Your task to perform on an android device: check out phone information Image 0: 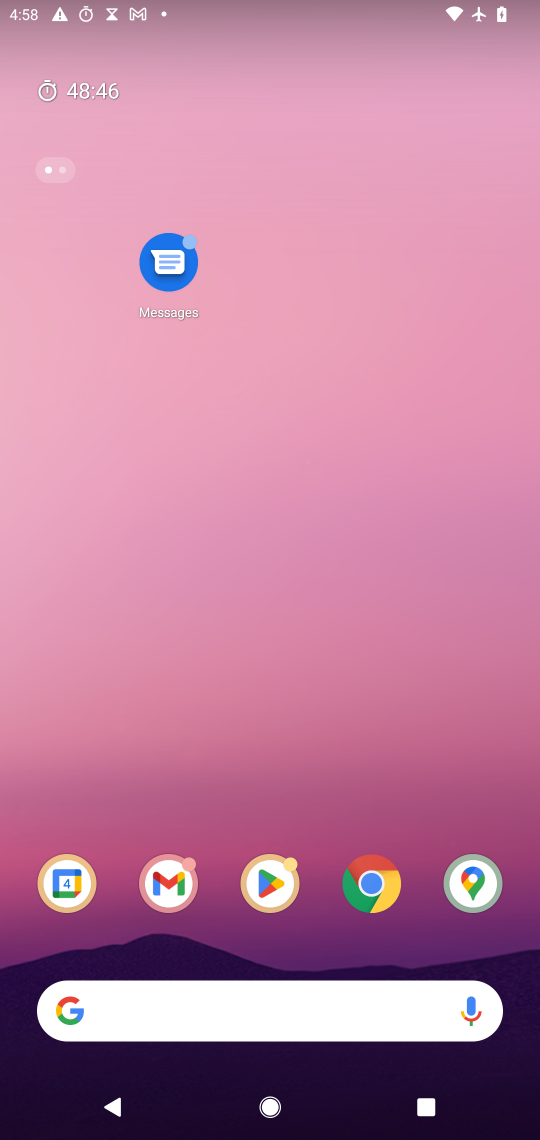
Step 0: drag from (318, 969) to (322, 65)
Your task to perform on an android device: check out phone information Image 1: 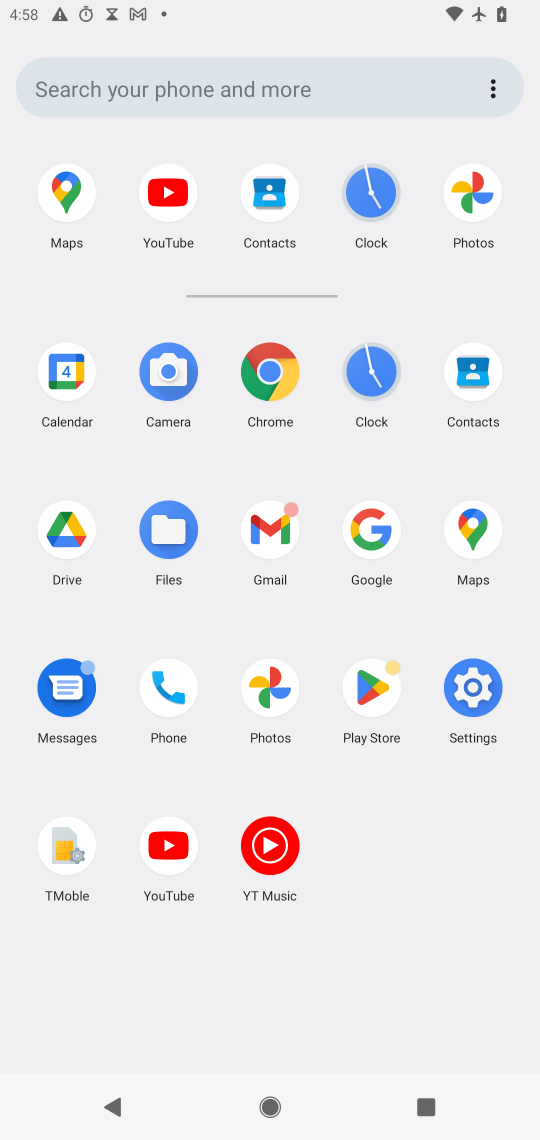
Step 1: click (472, 684)
Your task to perform on an android device: check out phone information Image 2: 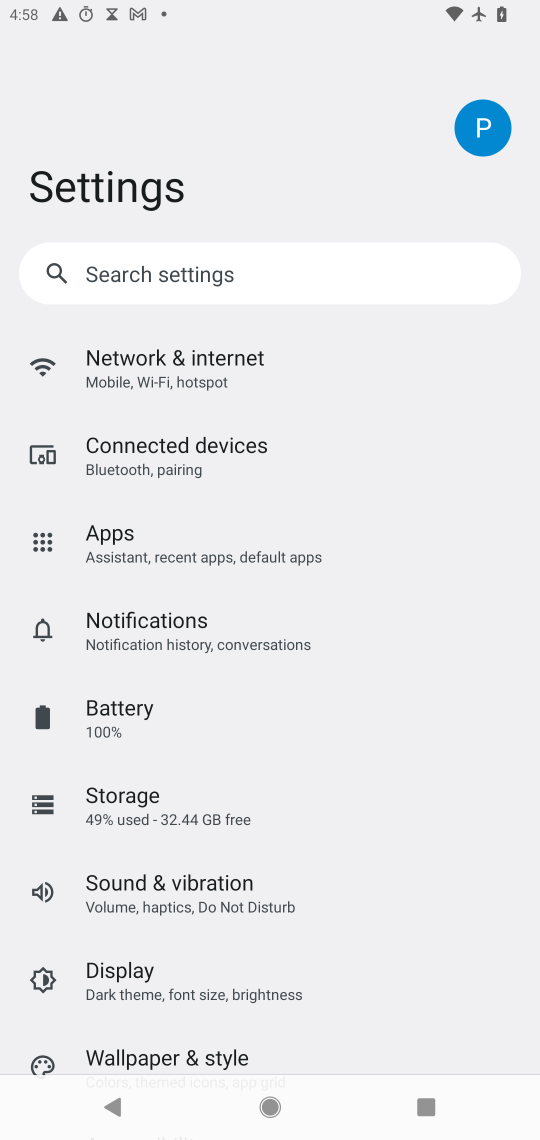
Step 2: drag from (238, 990) to (219, 595)
Your task to perform on an android device: check out phone information Image 3: 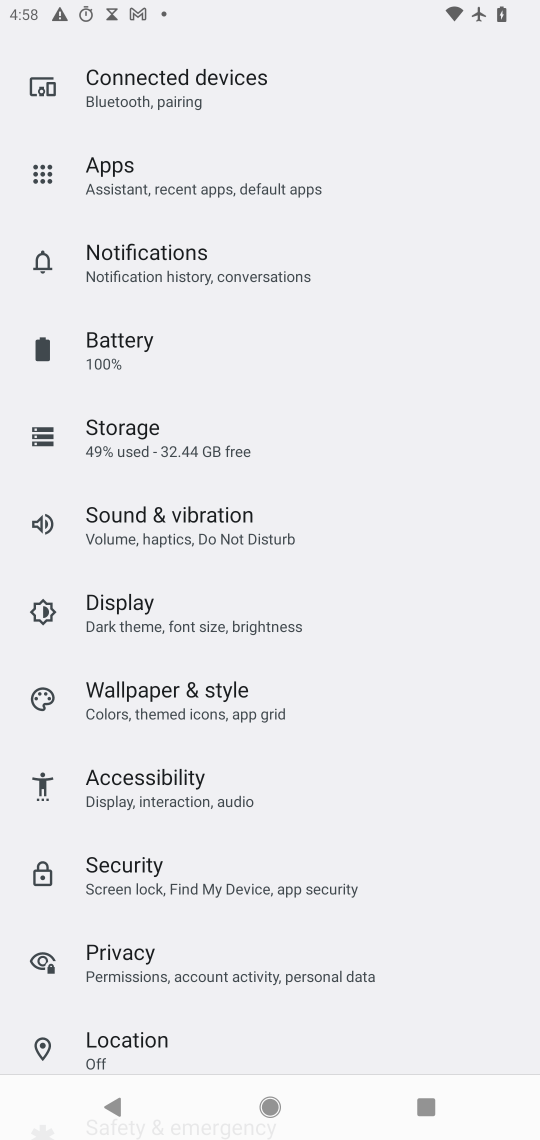
Step 3: drag from (224, 1004) to (209, 473)
Your task to perform on an android device: check out phone information Image 4: 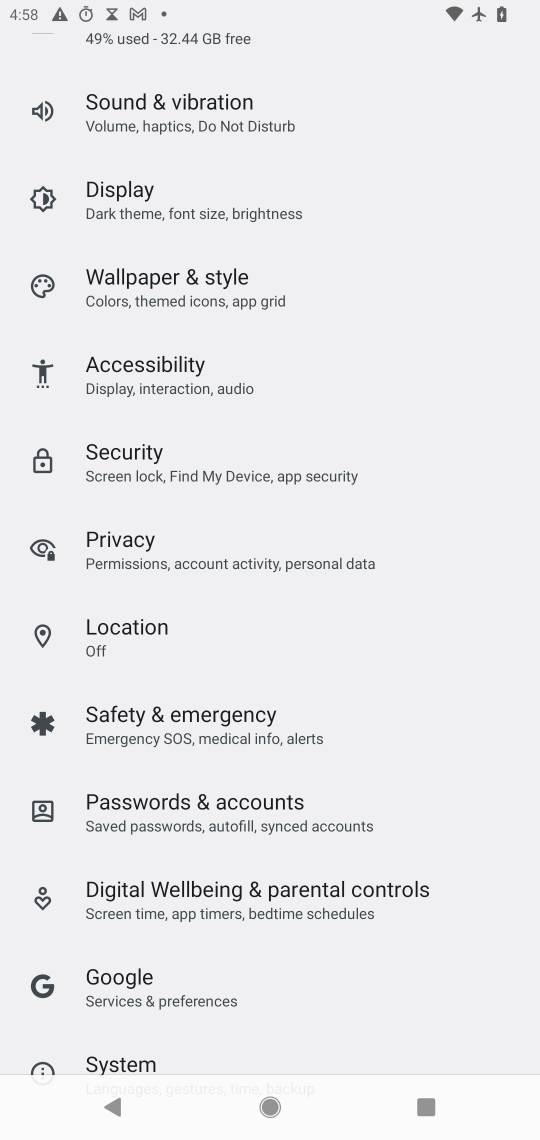
Step 4: drag from (254, 1019) to (232, 469)
Your task to perform on an android device: check out phone information Image 5: 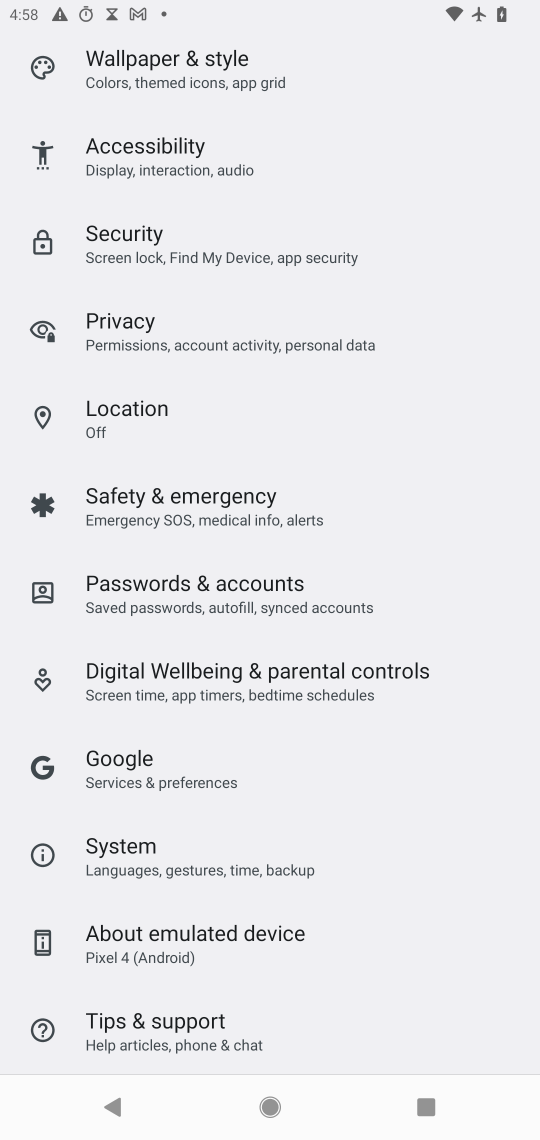
Step 5: drag from (231, 1029) to (234, 366)
Your task to perform on an android device: check out phone information Image 6: 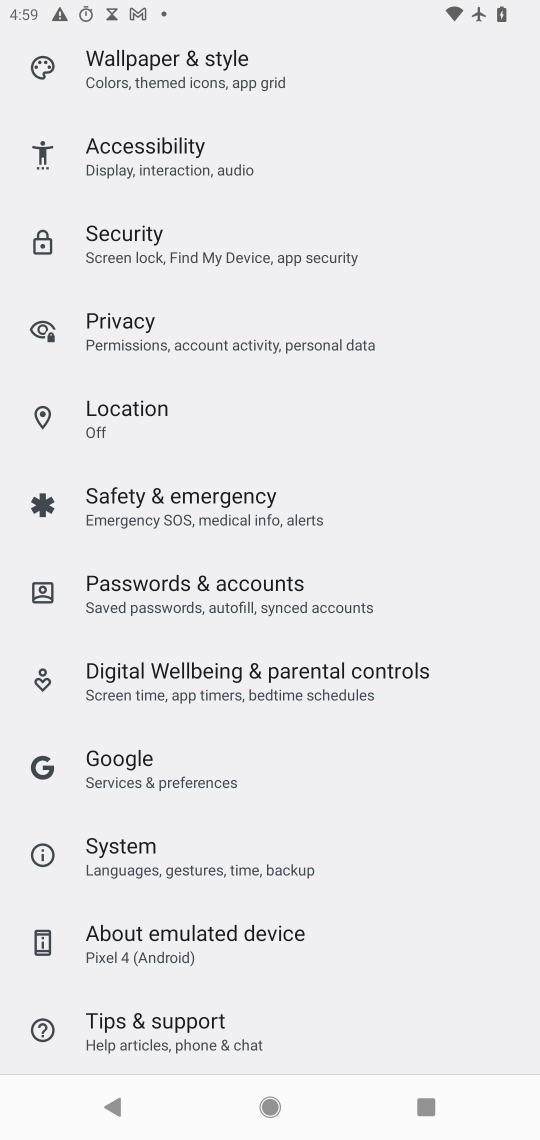
Step 6: drag from (145, 989) to (145, 521)
Your task to perform on an android device: check out phone information Image 7: 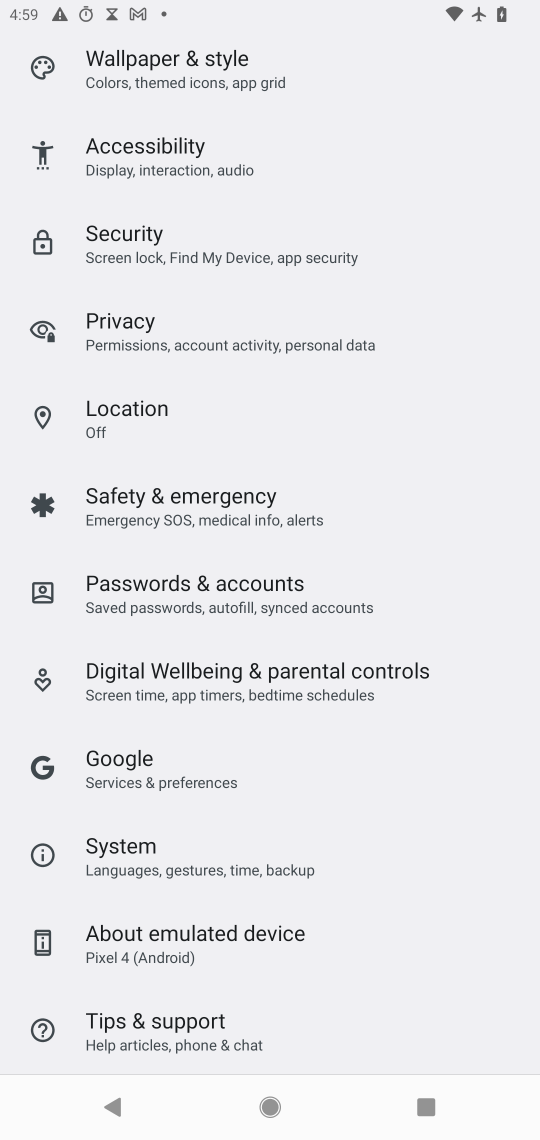
Step 7: click (130, 944)
Your task to perform on an android device: check out phone information Image 8: 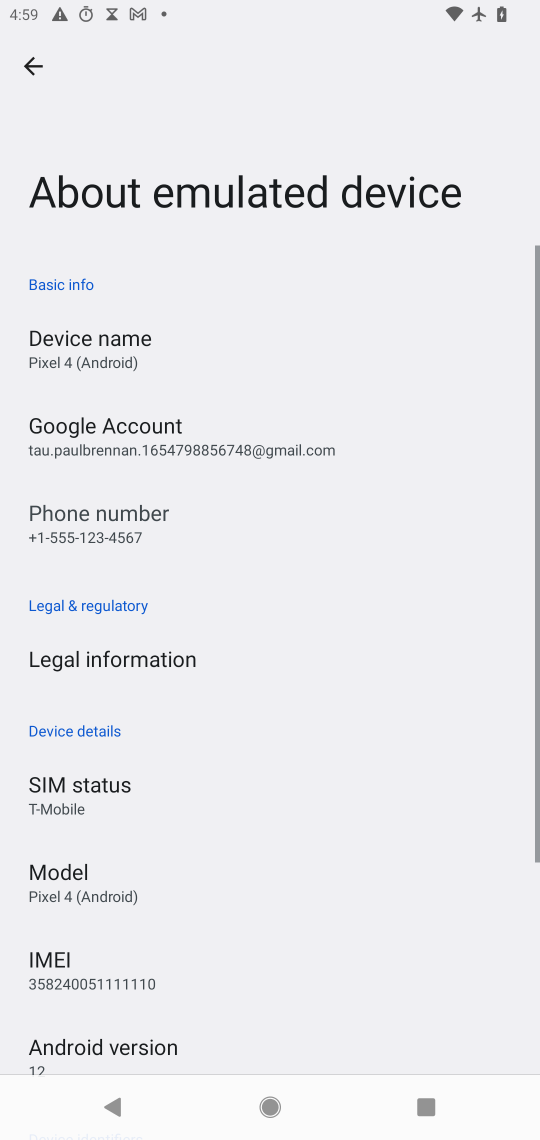
Step 8: task complete